Your task to perform on an android device: see creations saved in the google photos Image 0: 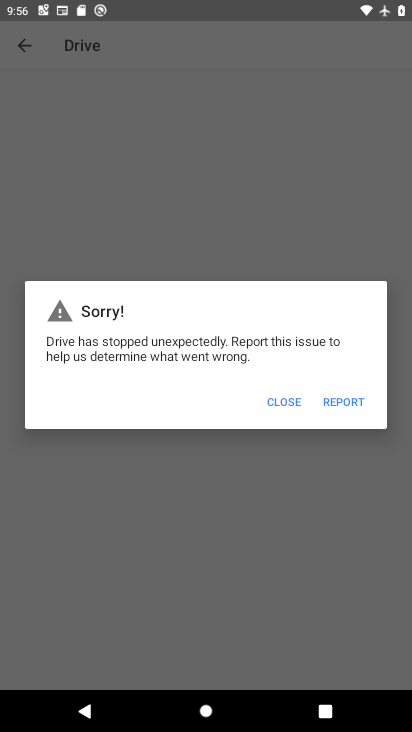
Step 0: press home button
Your task to perform on an android device: see creations saved in the google photos Image 1: 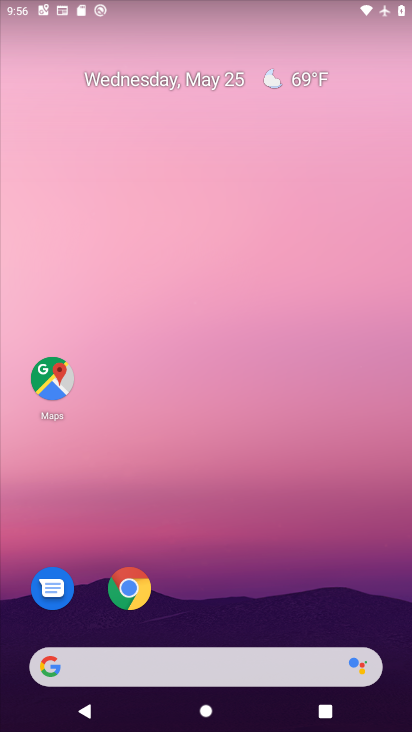
Step 1: drag from (359, 536) to (342, 239)
Your task to perform on an android device: see creations saved in the google photos Image 2: 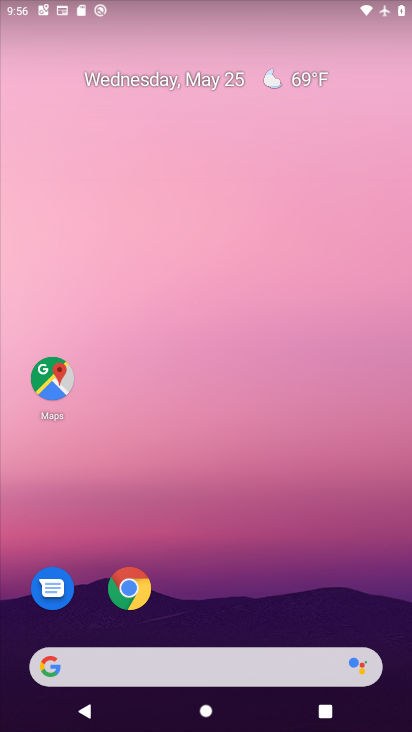
Step 2: drag from (390, 565) to (351, 162)
Your task to perform on an android device: see creations saved in the google photos Image 3: 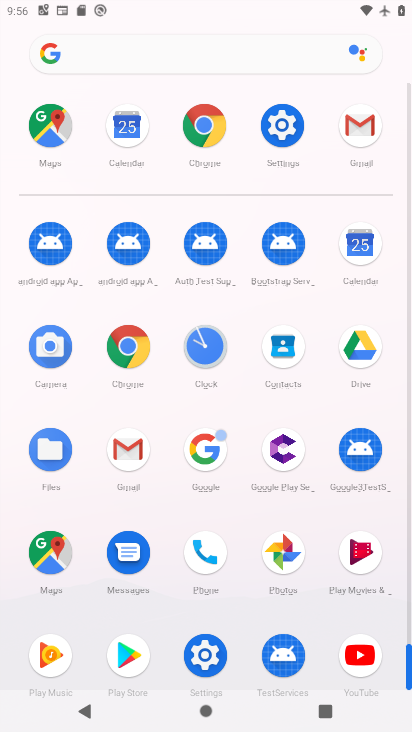
Step 3: click (286, 549)
Your task to perform on an android device: see creations saved in the google photos Image 4: 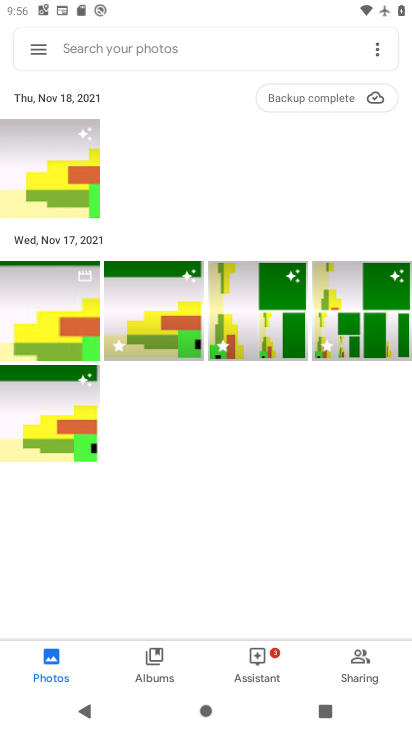
Step 4: click (200, 57)
Your task to perform on an android device: see creations saved in the google photos Image 5: 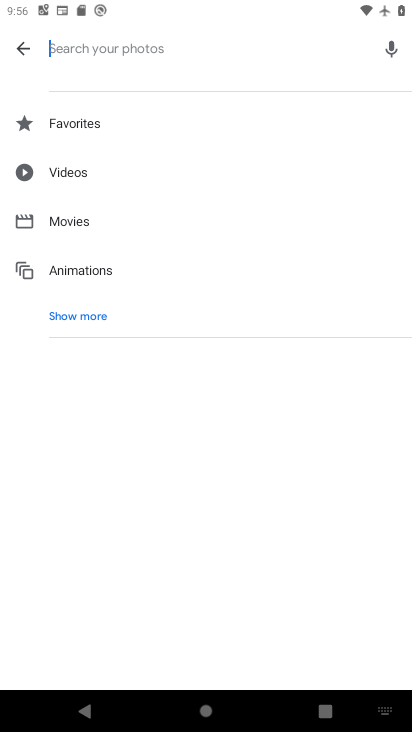
Step 5: click (127, 320)
Your task to perform on an android device: see creations saved in the google photos Image 6: 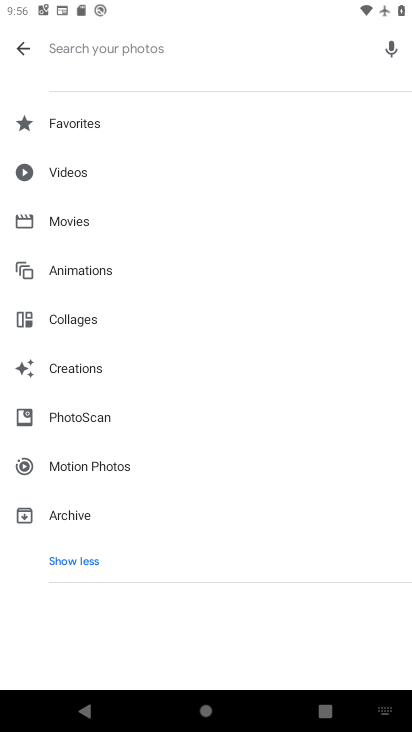
Step 6: click (105, 366)
Your task to perform on an android device: see creations saved in the google photos Image 7: 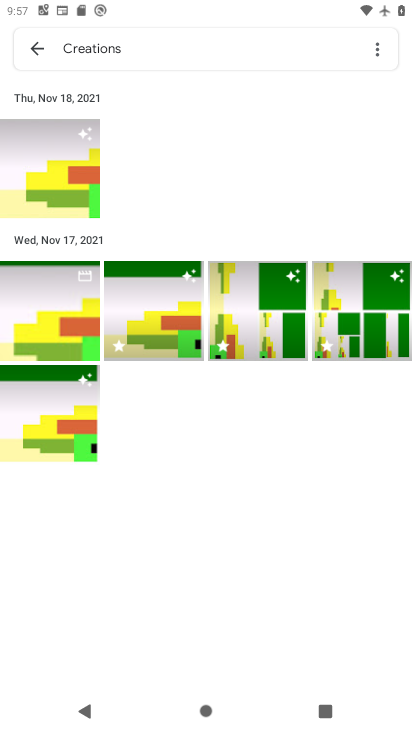
Step 7: task complete